Your task to perform on an android device: Open ESPN.com Image 0: 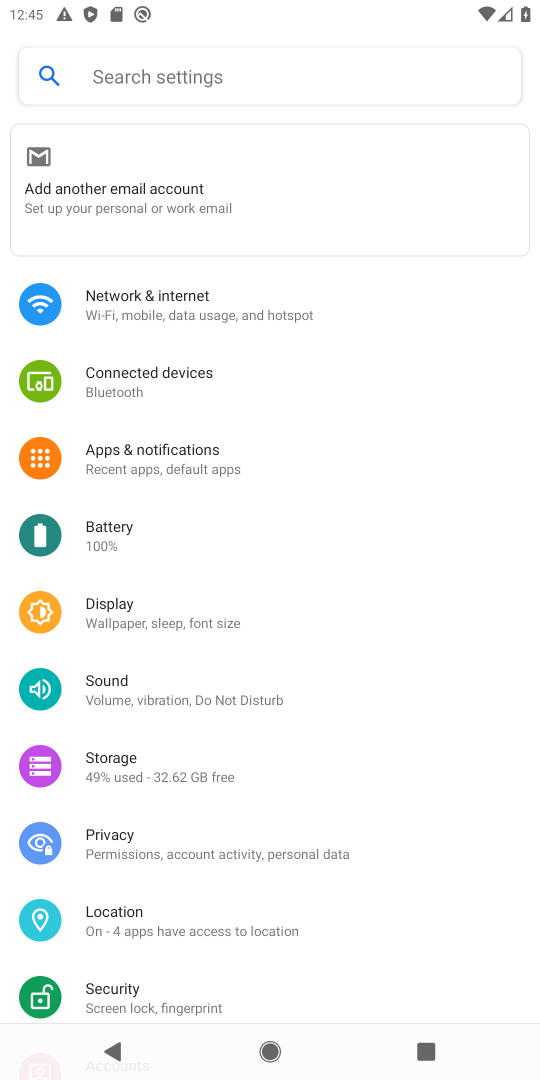
Step 0: press home button
Your task to perform on an android device: Open ESPN.com Image 1: 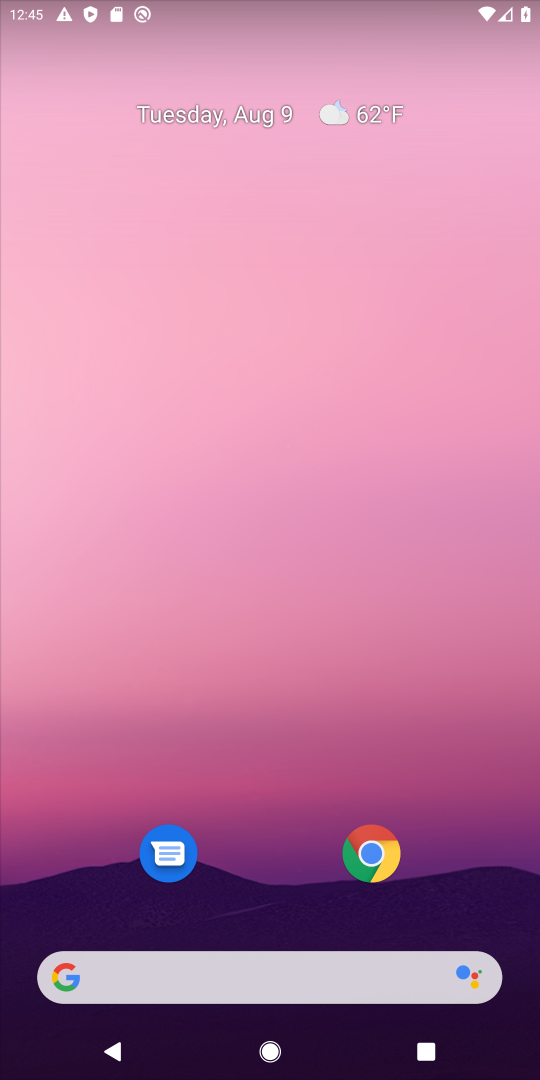
Step 1: click (59, 976)
Your task to perform on an android device: Open ESPN.com Image 2: 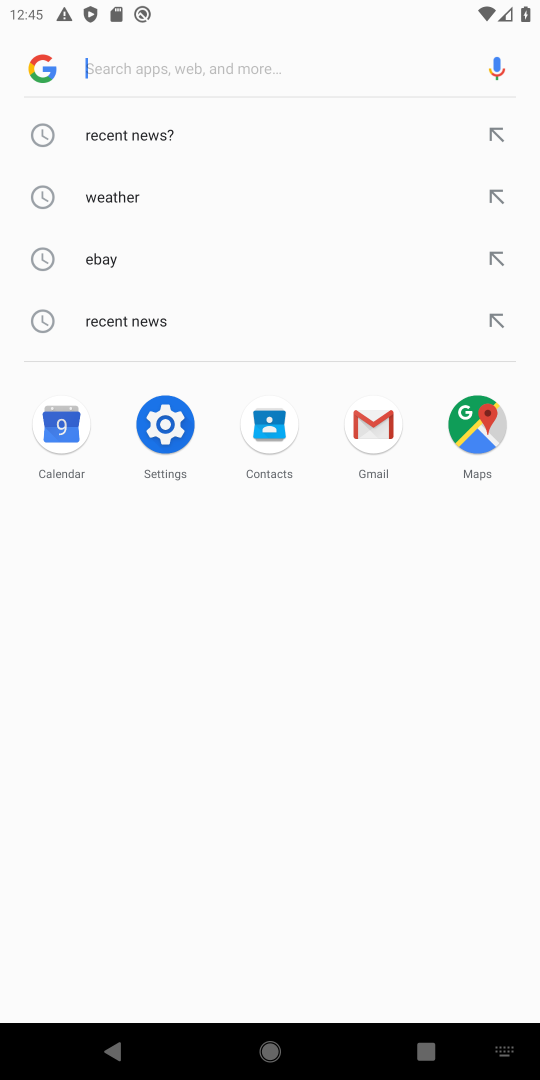
Step 2: type "ESPN.com"
Your task to perform on an android device: Open ESPN.com Image 3: 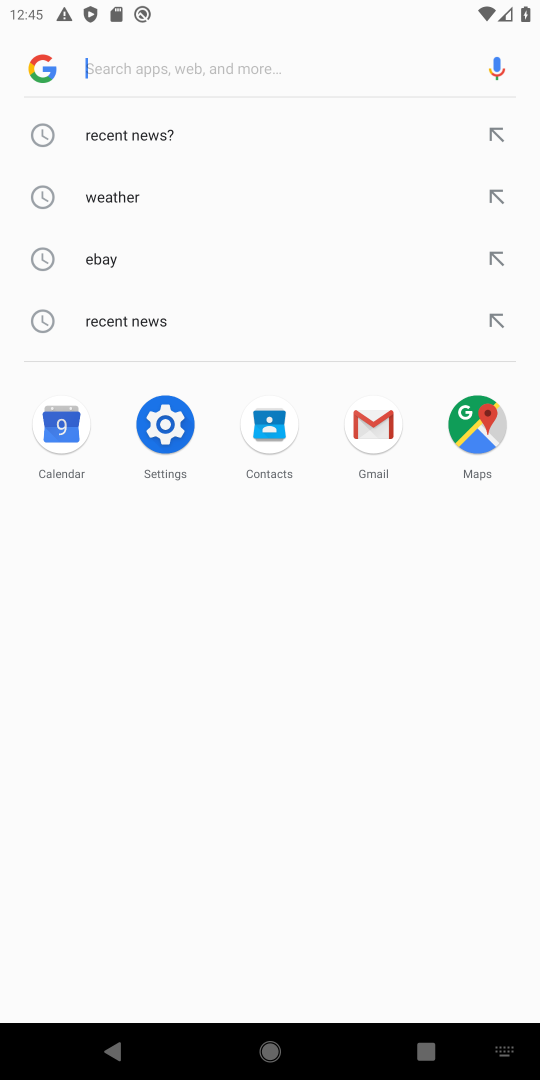
Step 3: click (137, 61)
Your task to perform on an android device: Open ESPN.com Image 4: 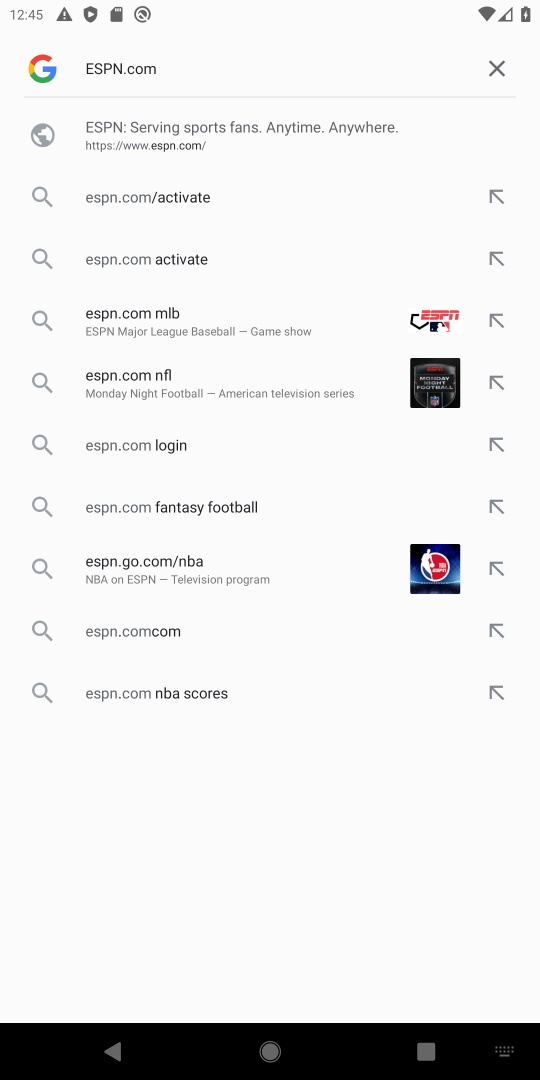
Step 4: press enter
Your task to perform on an android device: Open ESPN.com Image 5: 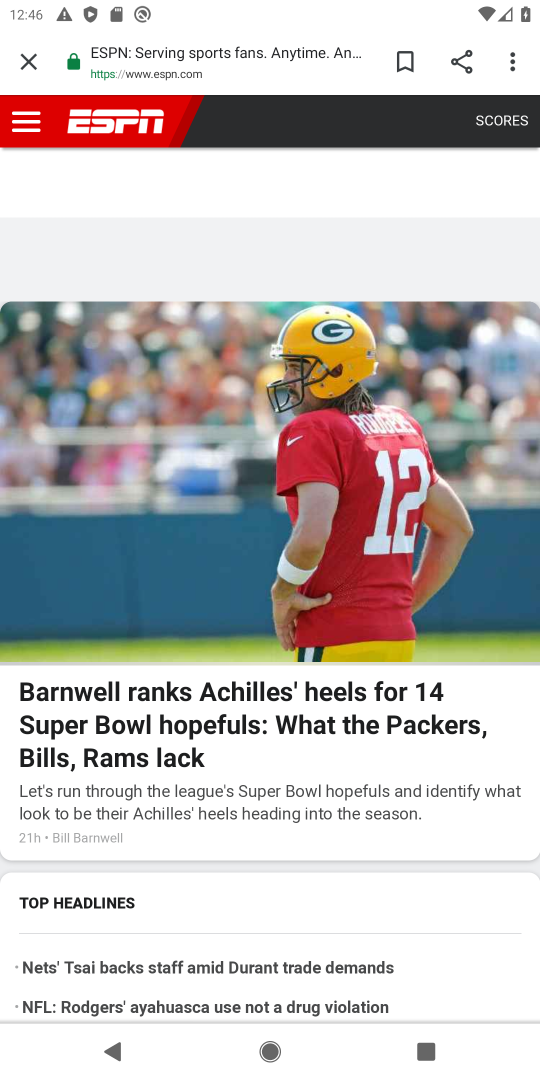
Step 5: task complete